Your task to perform on an android device: turn off notifications settings in the gmail app Image 0: 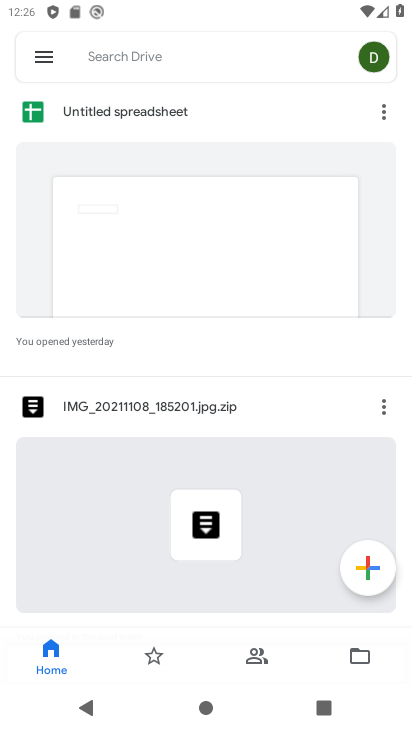
Step 0: press home button
Your task to perform on an android device: turn off notifications settings in the gmail app Image 1: 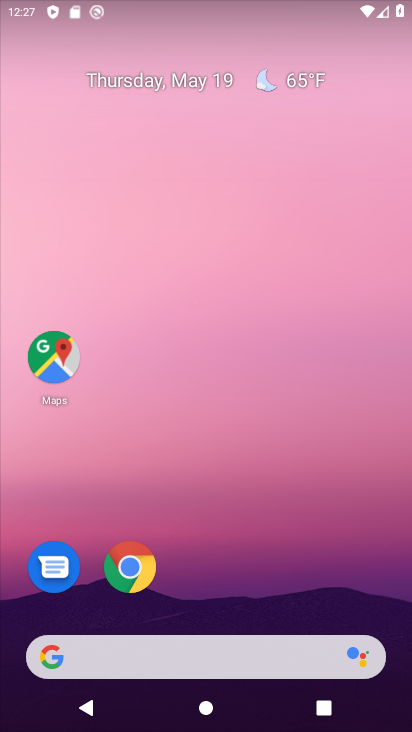
Step 1: drag from (264, 574) to (248, 133)
Your task to perform on an android device: turn off notifications settings in the gmail app Image 2: 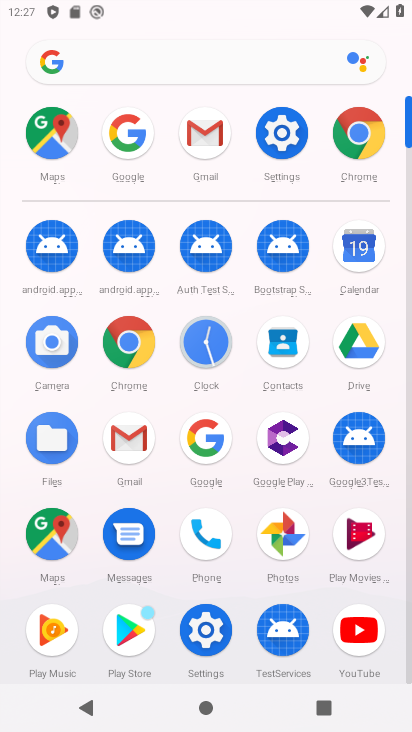
Step 2: click (289, 123)
Your task to perform on an android device: turn off notifications settings in the gmail app Image 3: 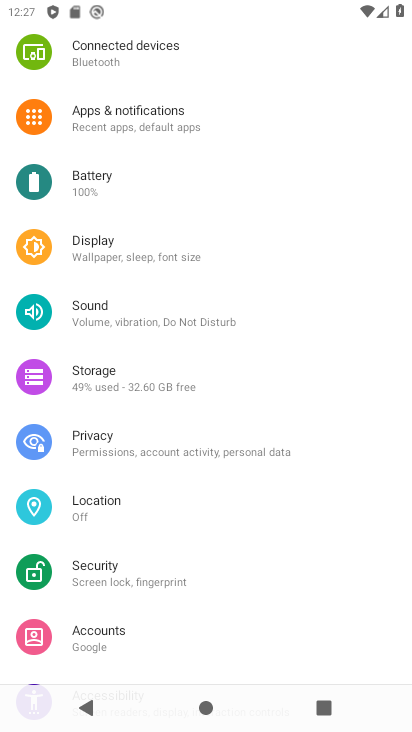
Step 3: click (159, 123)
Your task to perform on an android device: turn off notifications settings in the gmail app Image 4: 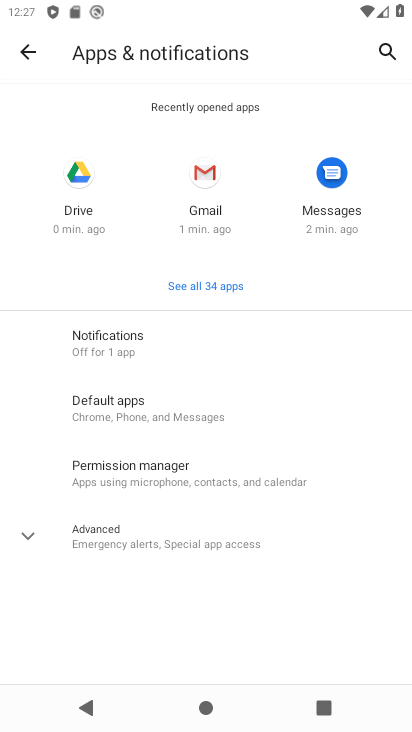
Step 4: click (163, 334)
Your task to perform on an android device: turn off notifications settings in the gmail app Image 5: 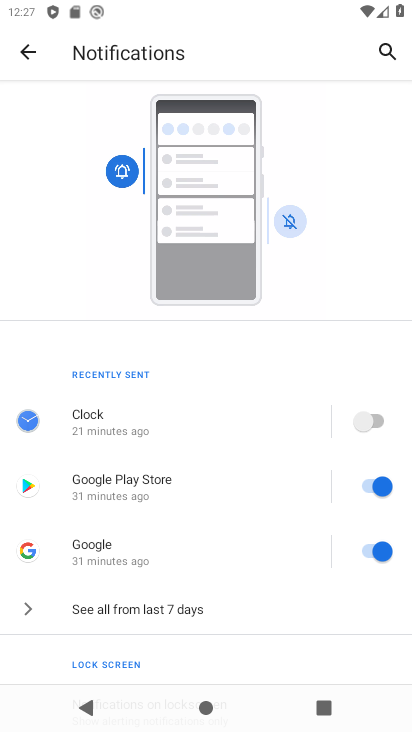
Step 5: press home button
Your task to perform on an android device: turn off notifications settings in the gmail app Image 6: 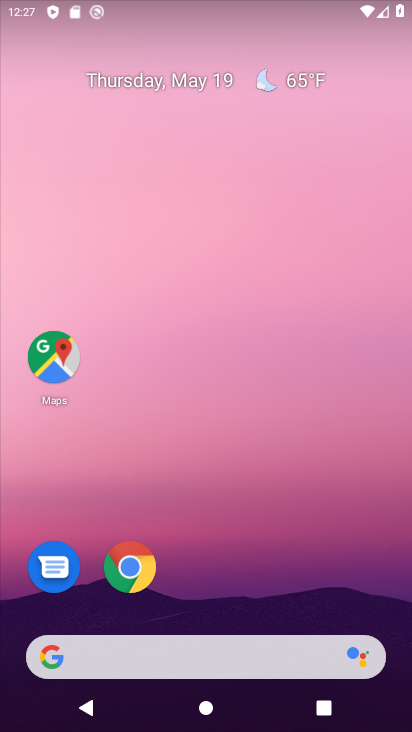
Step 6: drag from (244, 583) to (284, 81)
Your task to perform on an android device: turn off notifications settings in the gmail app Image 7: 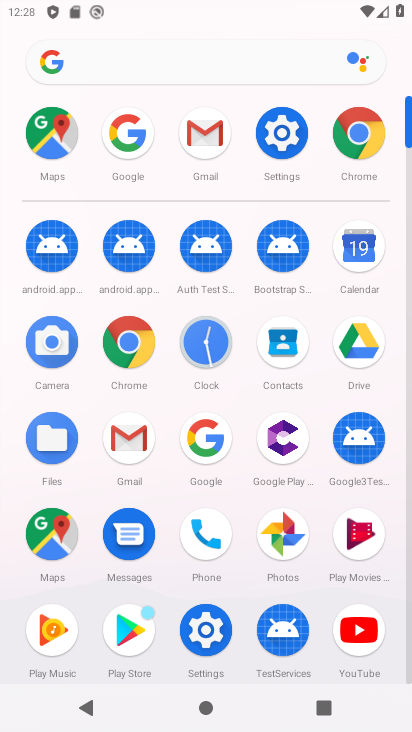
Step 7: click (209, 138)
Your task to perform on an android device: turn off notifications settings in the gmail app Image 8: 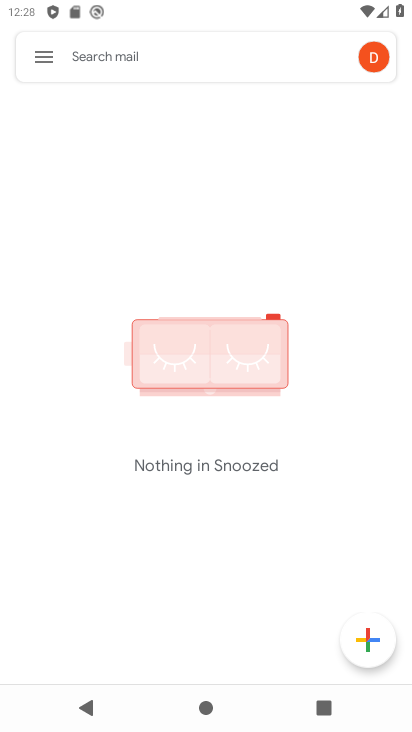
Step 8: click (37, 55)
Your task to perform on an android device: turn off notifications settings in the gmail app Image 9: 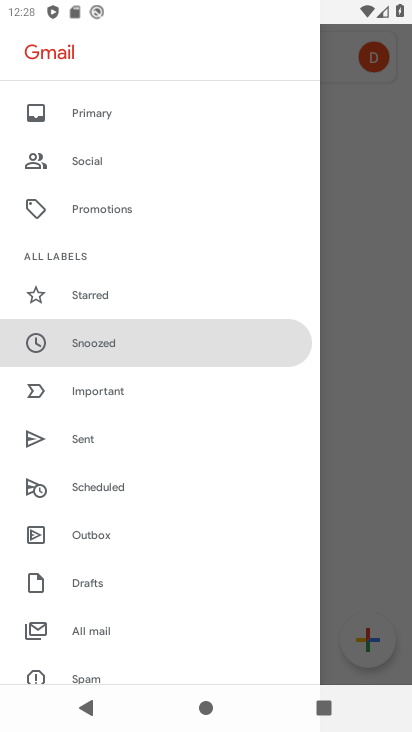
Step 9: drag from (239, 651) to (247, 256)
Your task to perform on an android device: turn off notifications settings in the gmail app Image 10: 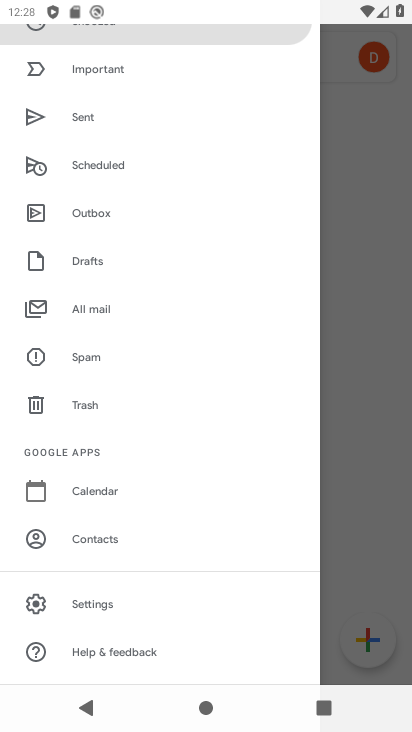
Step 10: click (125, 604)
Your task to perform on an android device: turn off notifications settings in the gmail app Image 11: 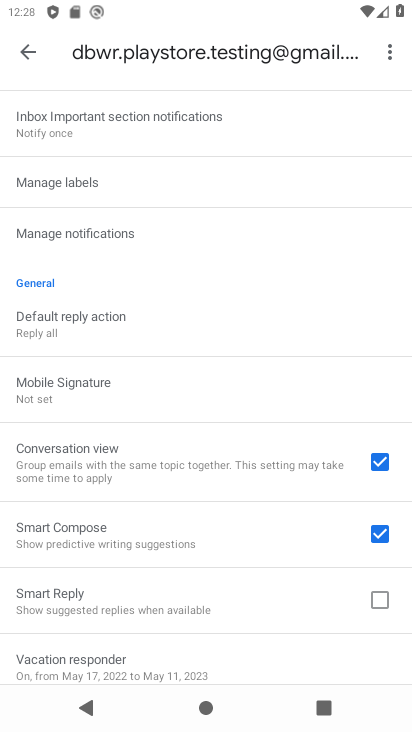
Step 11: click (174, 231)
Your task to perform on an android device: turn off notifications settings in the gmail app Image 12: 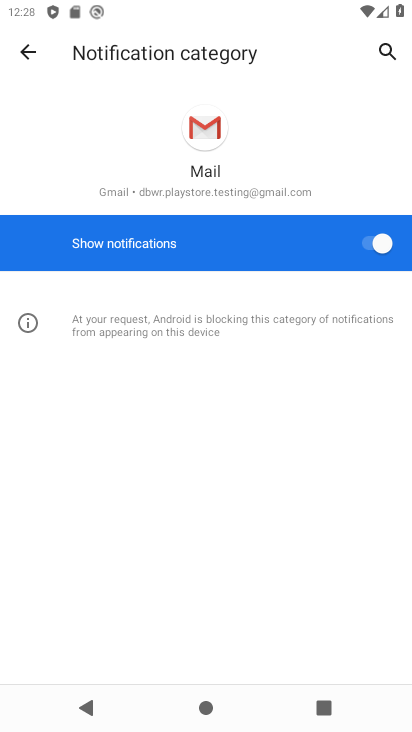
Step 12: click (371, 240)
Your task to perform on an android device: turn off notifications settings in the gmail app Image 13: 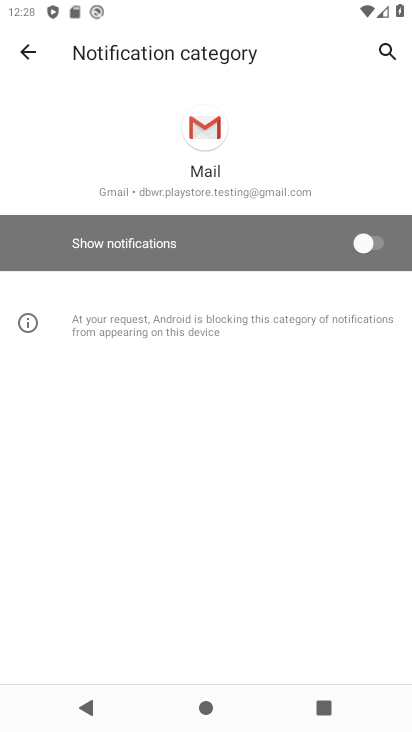
Step 13: task complete